Your task to perform on an android device: Empty the shopping cart on ebay. Image 0: 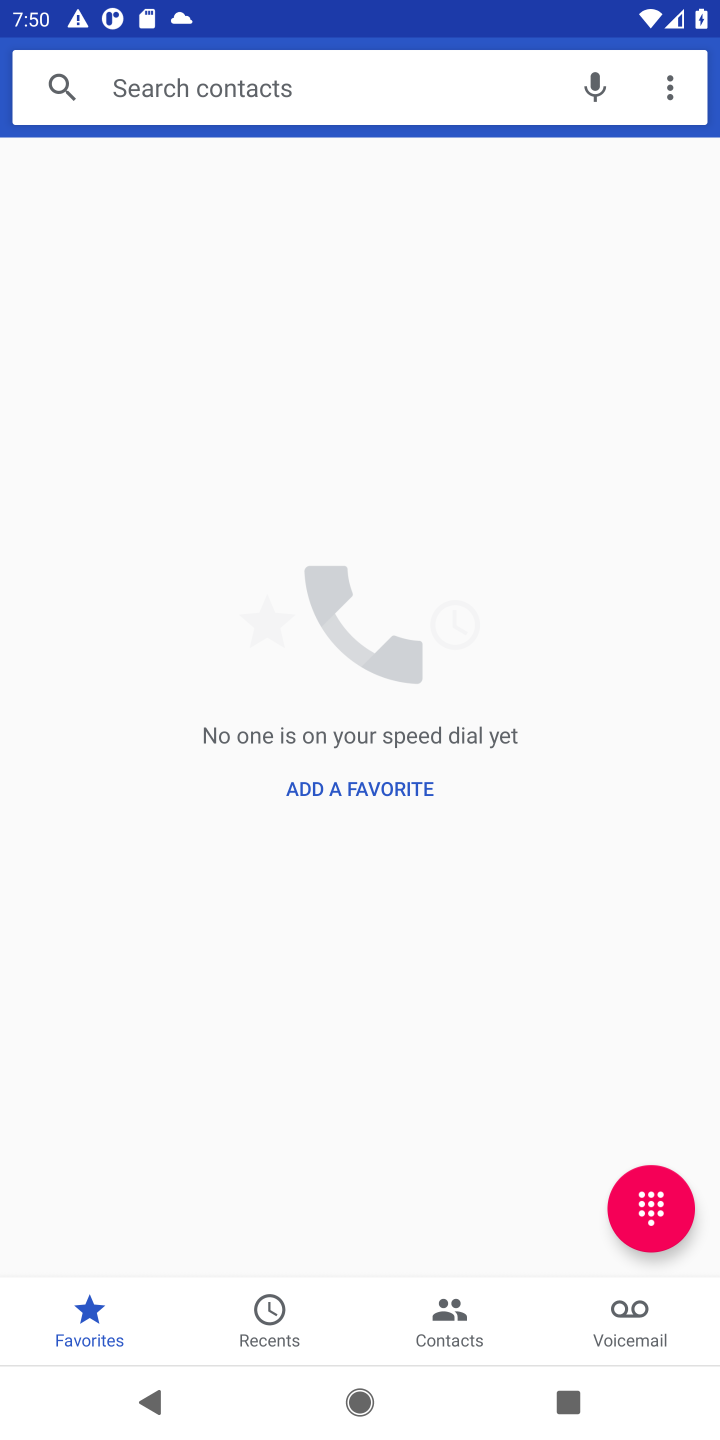
Step 0: press home button
Your task to perform on an android device: Empty the shopping cart on ebay. Image 1: 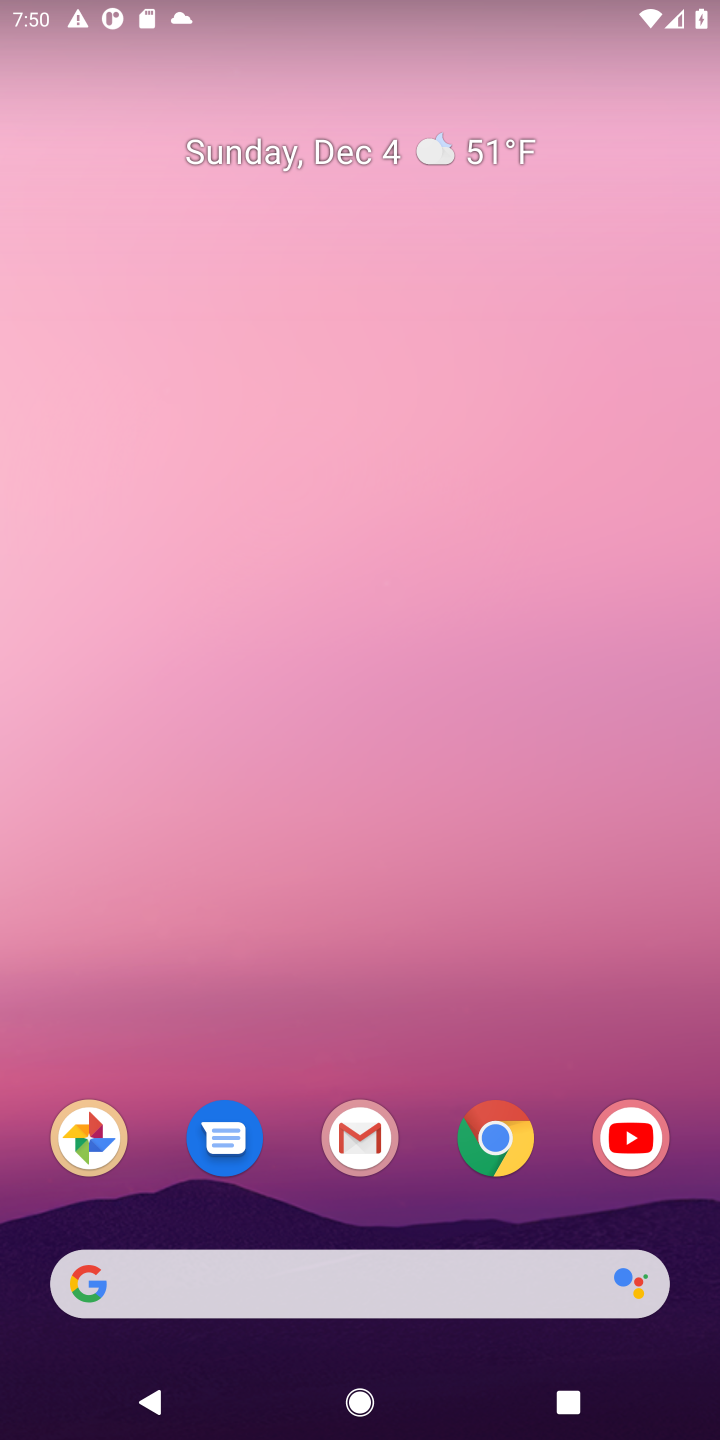
Step 1: click (510, 1155)
Your task to perform on an android device: Empty the shopping cart on ebay. Image 2: 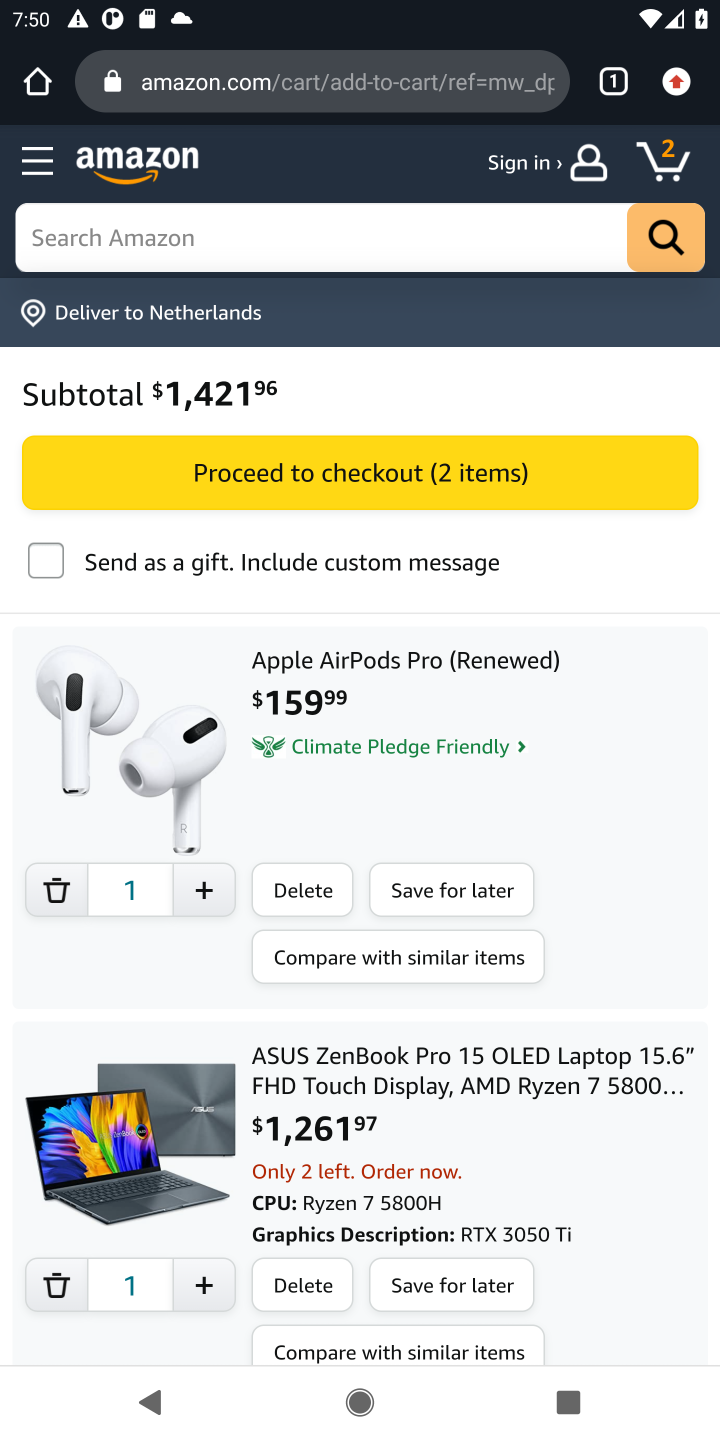
Step 2: click (397, 83)
Your task to perform on an android device: Empty the shopping cart on ebay. Image 3: 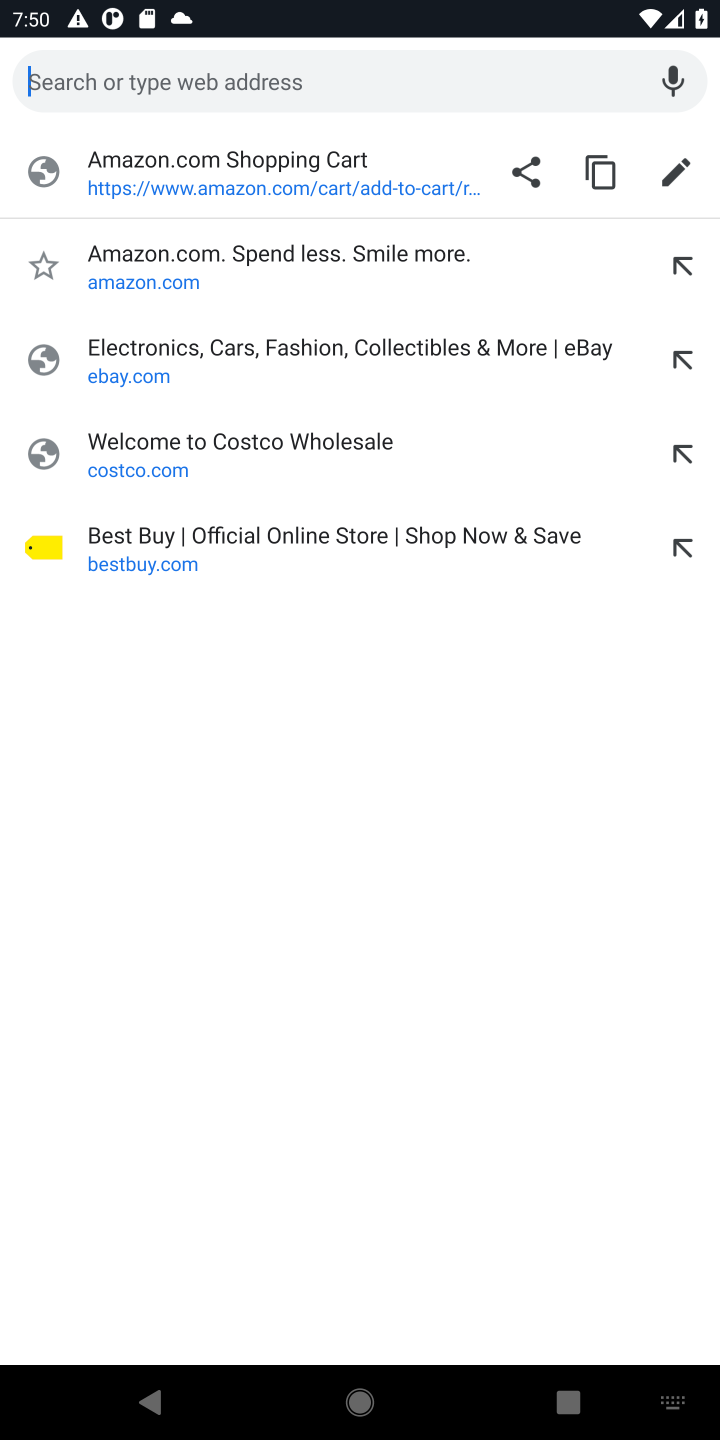
Step 3: click (186, 348)
Your task to perform on an android device: Empty the shopping cart on ebay. Image 4: 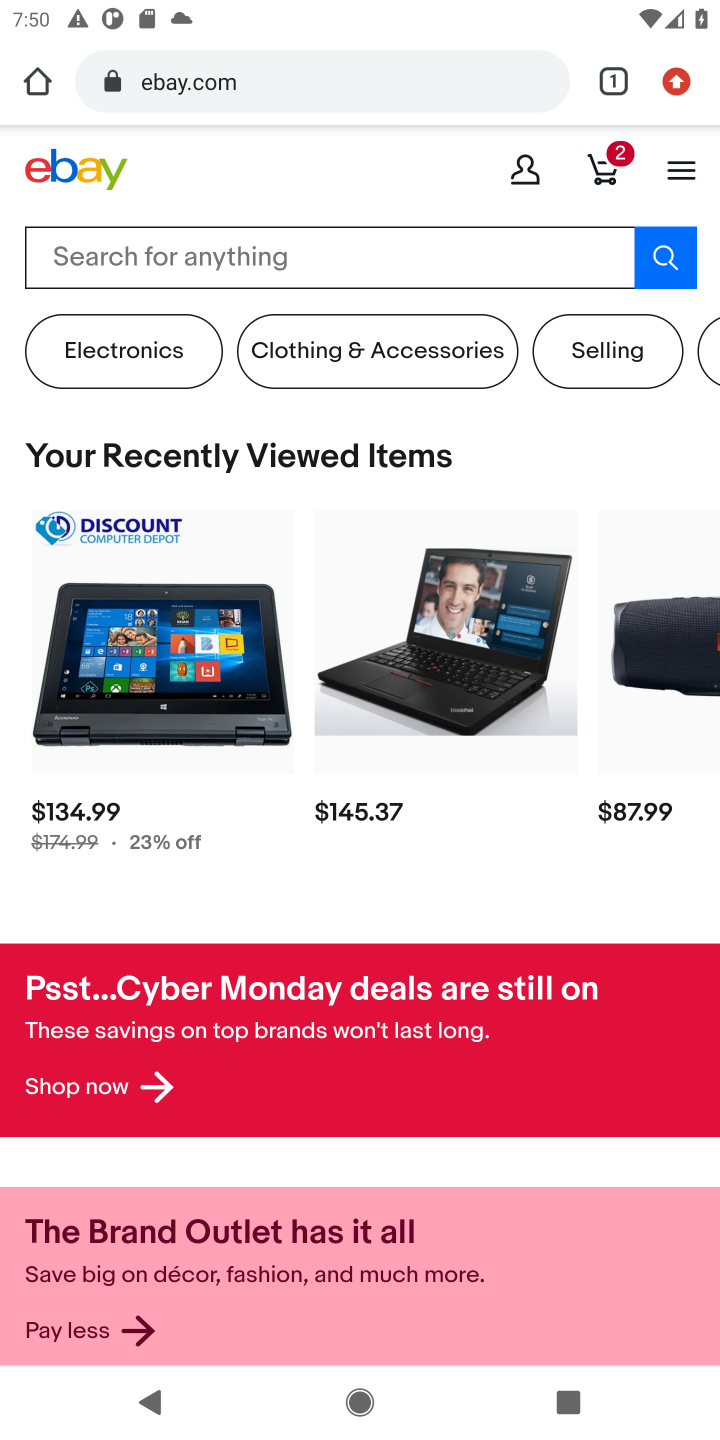
Step 4: click (605, 165)
Your task to perform on an android device: Empty the shopping cart on ebay. Image 5: 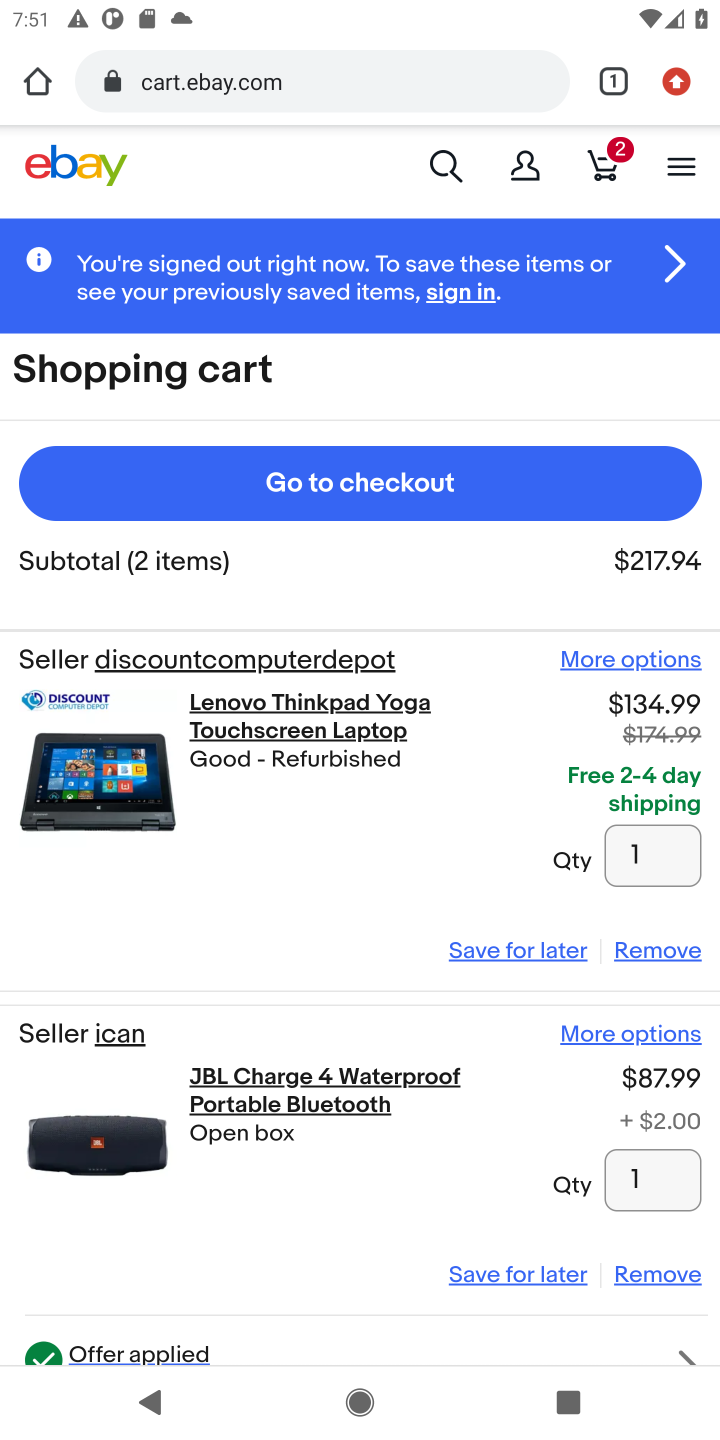
Step 5: click (649, 953)
Your task to perform on an android device: Empty the shopping cart on ebay. Image 6: 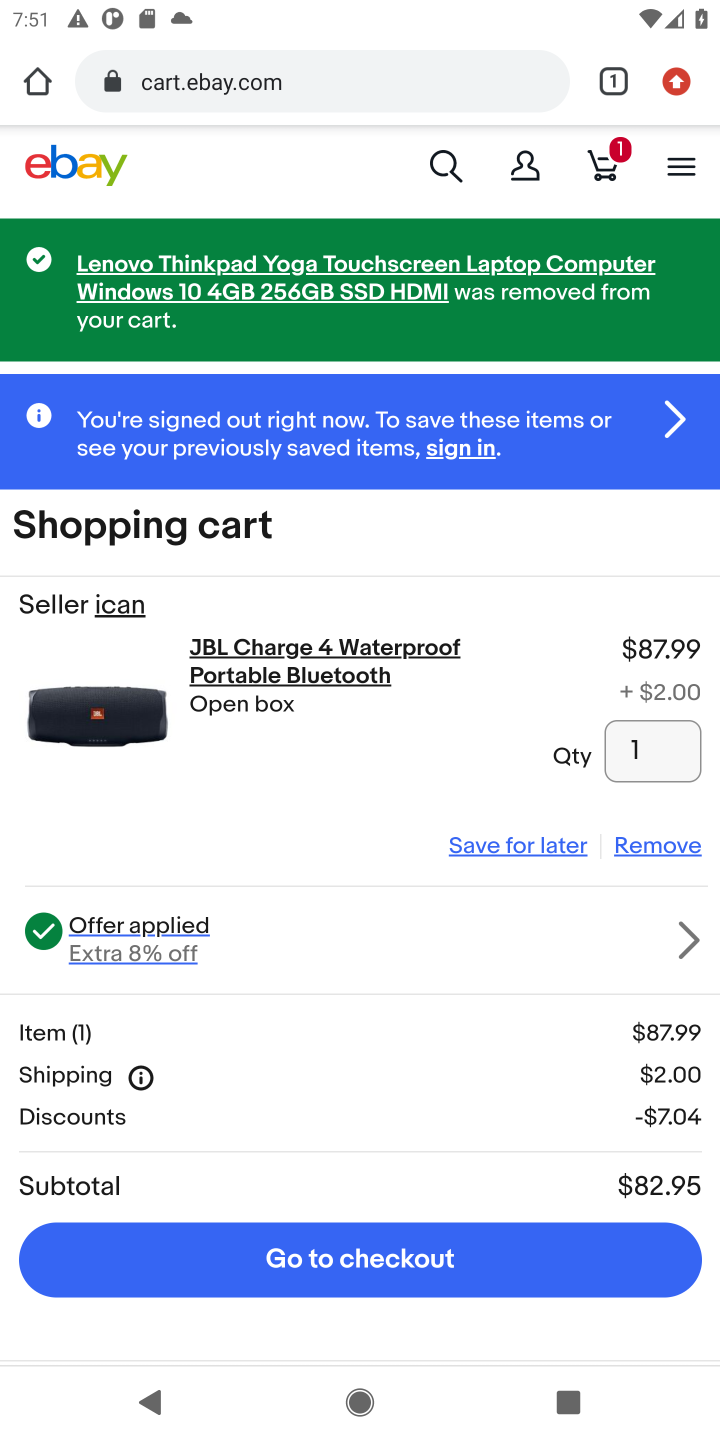
Step 6: click (659, 850)
Your task to perform on an android device: Empty the shopping cart on ebay. Image 7: 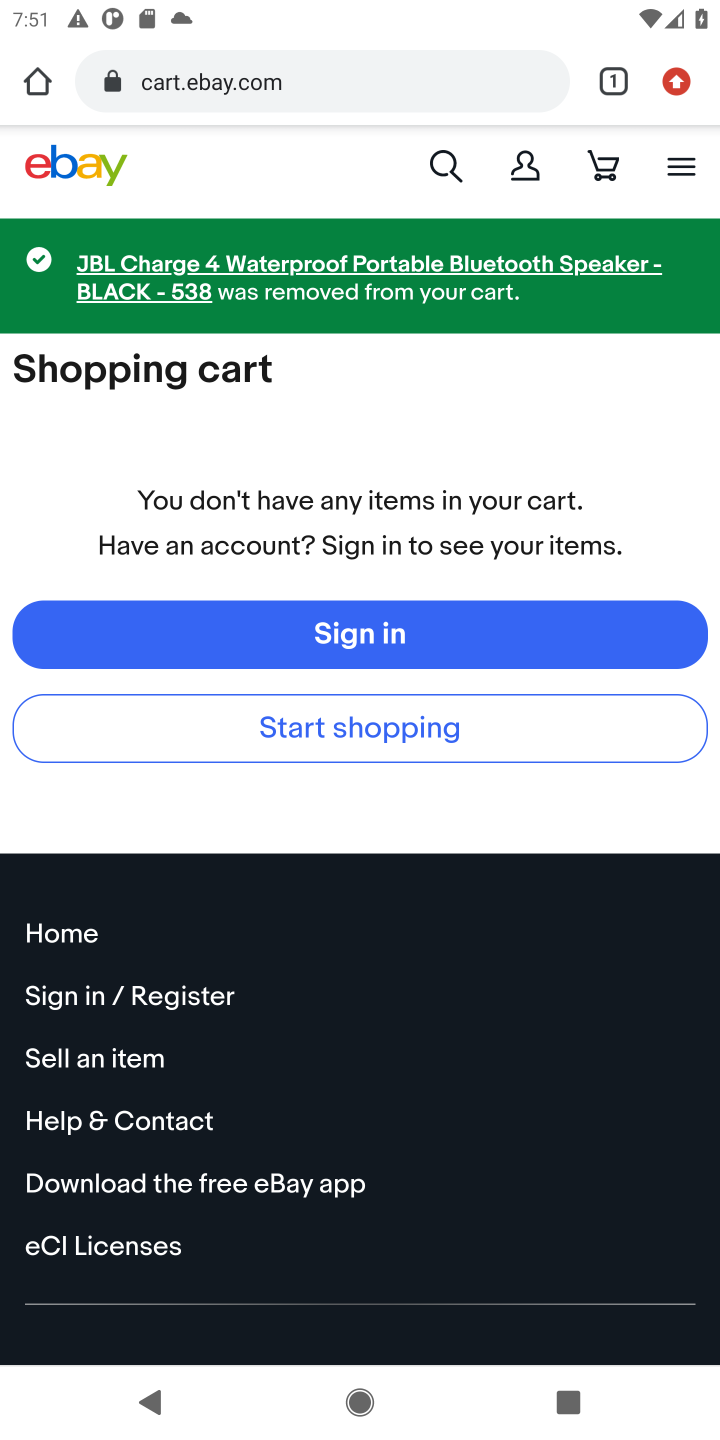
Step 7: task complete